Your task to perform on an android device: Set the phone to "Do not disturb". Image 0: 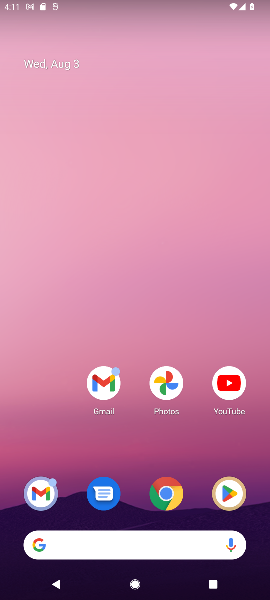
Step 0: drag from (51, 437) to (55, 134)
Your task to perform on an android device: Set the phone to "Do not disturb". Image 1: 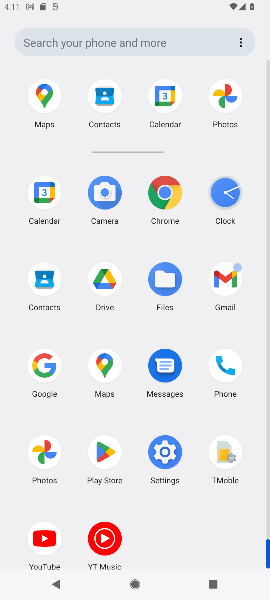
Step 1: click (165, 468)
Your task to perform on an android device: Set the phone to "Do not disturb". Image 2: 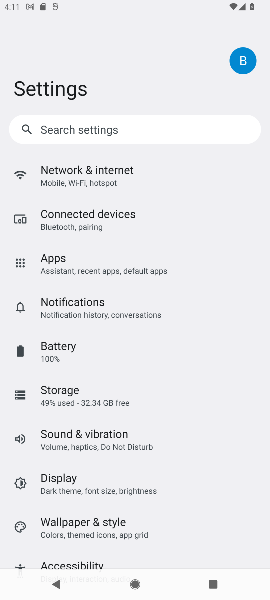
Step 2: drag from (184, 527) to (192, 452)
Your task to perform on an android device: Set the phone to "Do not disturb". Image 3: 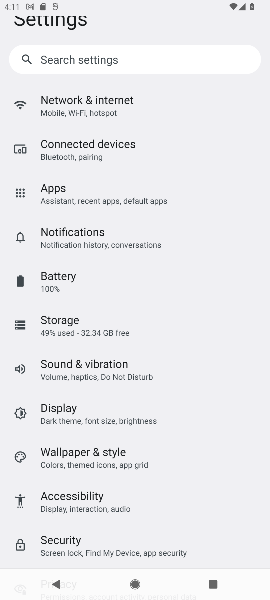
Step 3: drag from (211, 504) to (219, 431)
Your task to perform on an android device: Set the phone to "Do not disturb". Image 4: 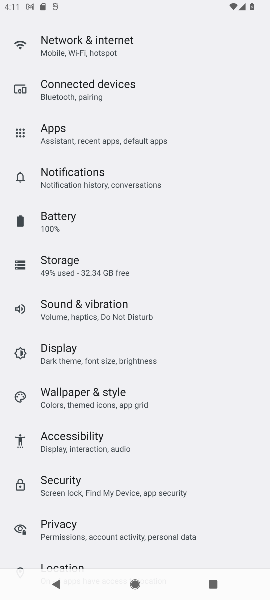
Step 4: drag from (221, 490) to (230, 347)
Your task to perform on an android device: Set the phone to "Do not disturb". Image 5: 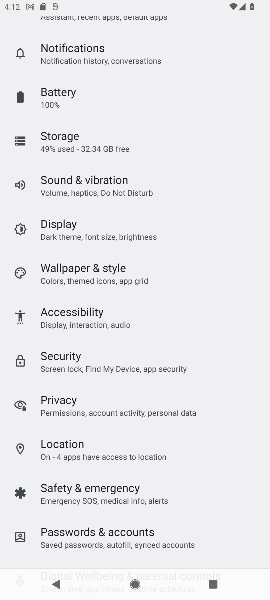
Step 5: drag from (218, 481) to (224, 349)
Your task to perform on an android device: Set the phone to "Do not disturb". Image 6: 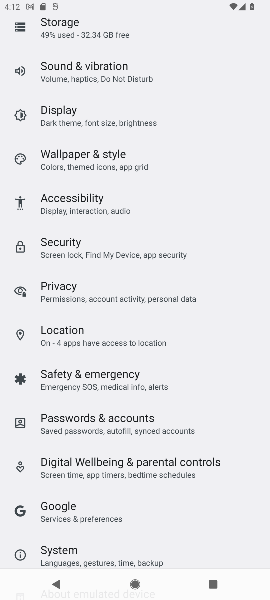
Step 6: drag from (219, 466) to (224, 371)
Your task to perform on an android device: Set the phone to "Do not disturb". Image 7: 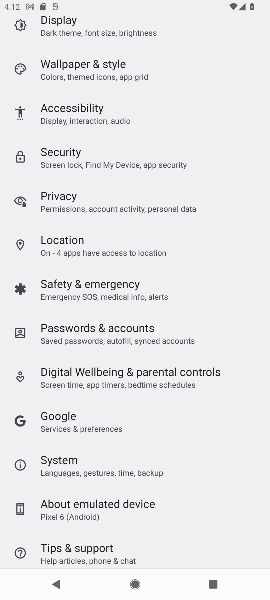
Step 7: drag from (212, 470) to (222, 360)
Your task to perform on an android device: Set the phone to "Do not disturb". Image 8: 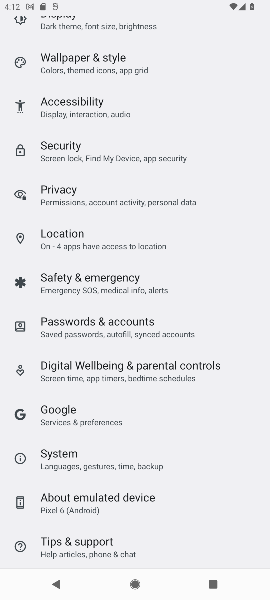
Step 8: drag from (212, 436) to (210, 314)
Your task to perform on an android device: Set the phone to "Do not disturb". Image 9: 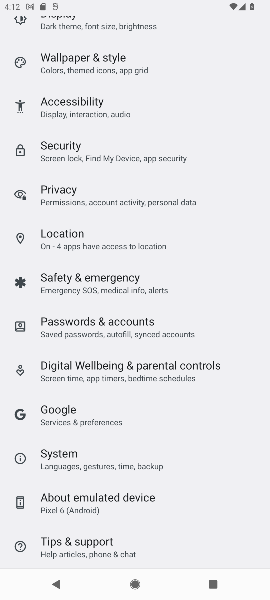
Step 9: drag from (210, 471) to (215, 335)
Your task to perform on an android device: Set the phone to "Do not disturb". Image 10: 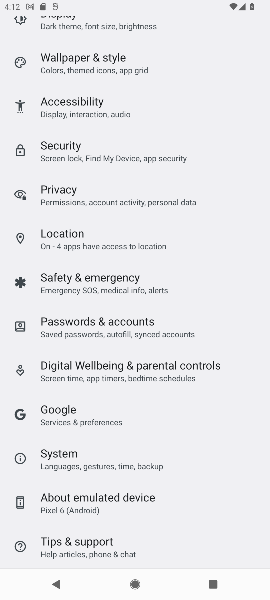
Step 10: drag from (234, 123) to (236, 237)
Your task to perform on an android device: Set the phone to "Do not disturb". Image 11: 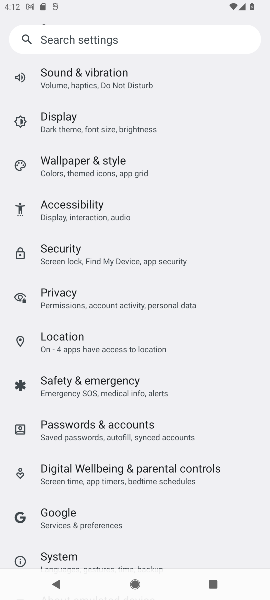
Step 11: drag from (209, 98) to (212, 259)
Your task to perform on an android device: Set the phone to "Do not disturb". Image 12: 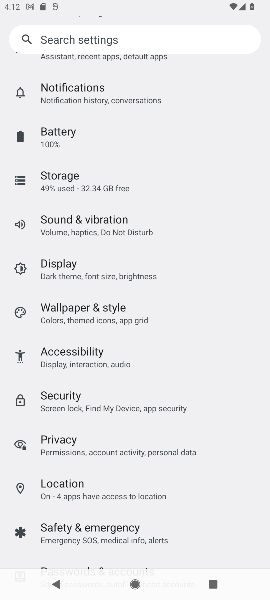
Step 12: click (157, 226)
Your task to perform on an android device: Set the phone to "Do not disturb". Image 13: 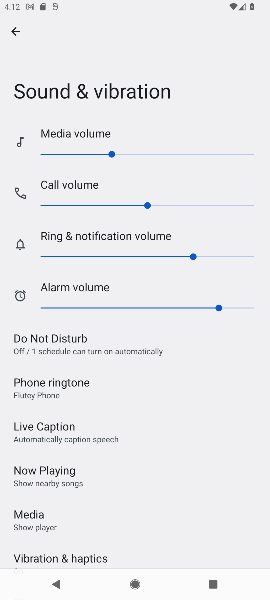
Step 13: click (122, 339)
Your task to perform on an android device: Set the phone to "Do not disturb". Image 14: 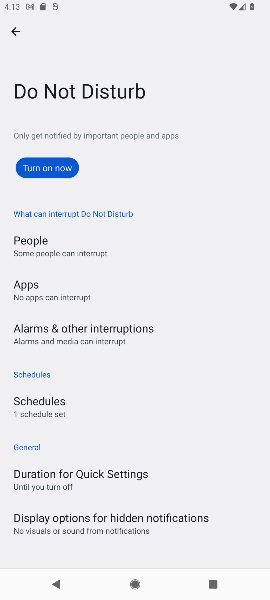
Step 14: click (55, 170)
Your task to perform on an android device: Set the phone to "Do not disturb". Image 15: 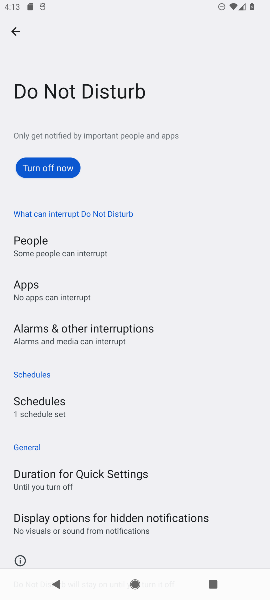
Step 15: task complete